Your task to perform on an android device: toggle translation in the chrome app Image 0: 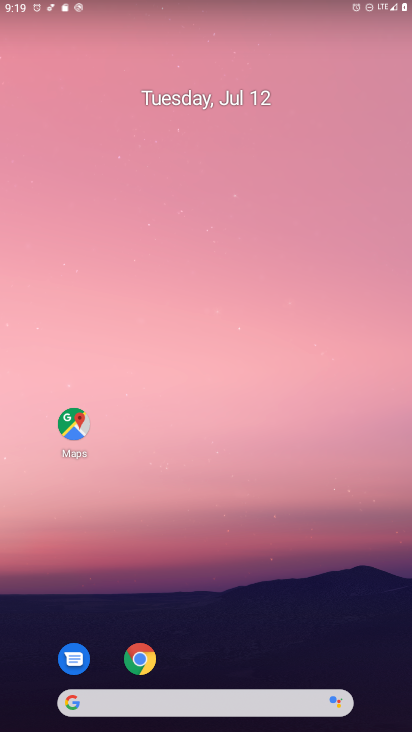
Step 0: click (140, 658)
Your task to perform on an android device: toggle translation in the chrome app Image 1: 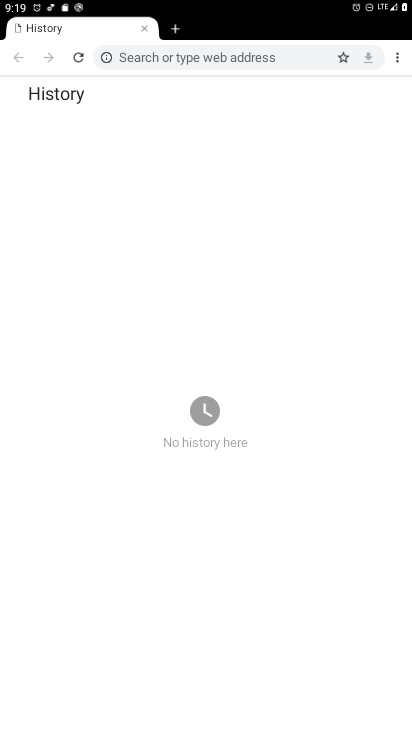
Step 1: click (399, 56)
Your task to perform on an android device: toggle translation in the chrome app Image 2: 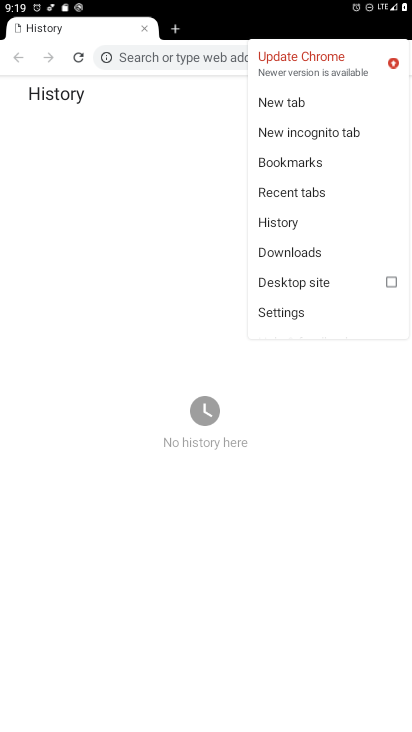
Step 2: click (289, 308)
Your task to perform on an android device: toggle translation in the chrome app Image 3: 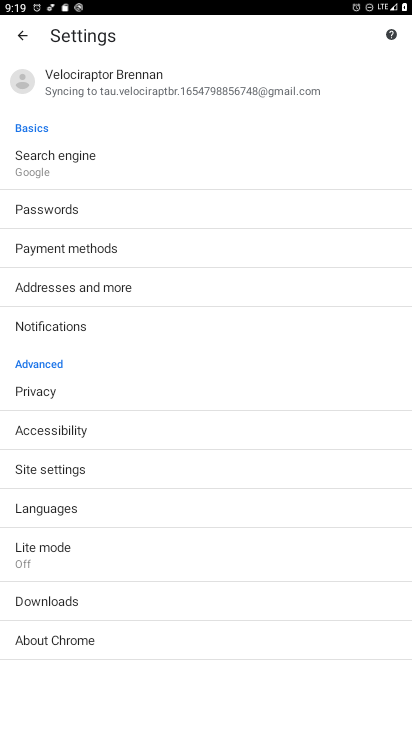
Step 3: click (66, 510)
Your task to perform on an android device: toggle translation in the chrome app Image 4: 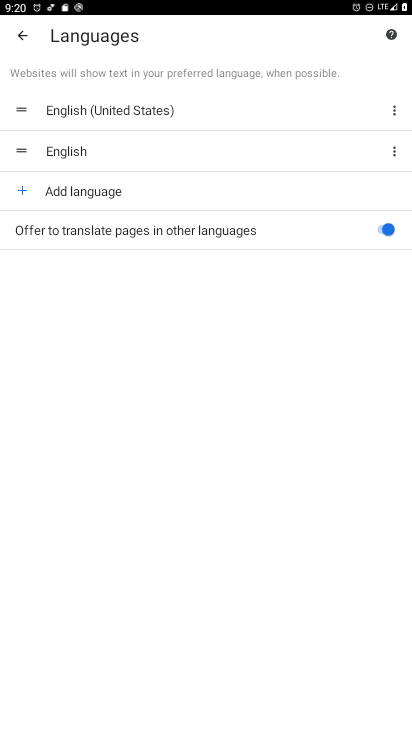
Step 4: click (383, 228)
Your task to perform on an android device: toggle translation in the chrome app Image 5: 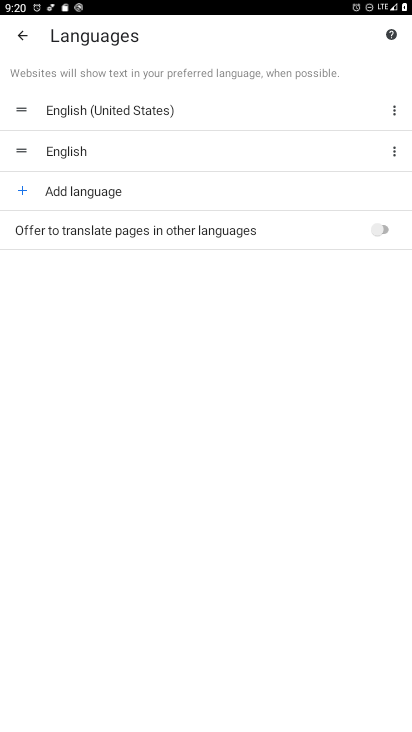
Step 5: task complete